Your task to perform on an android device: open app "PUBG MOBILE" (install if not already installed) Image 0: 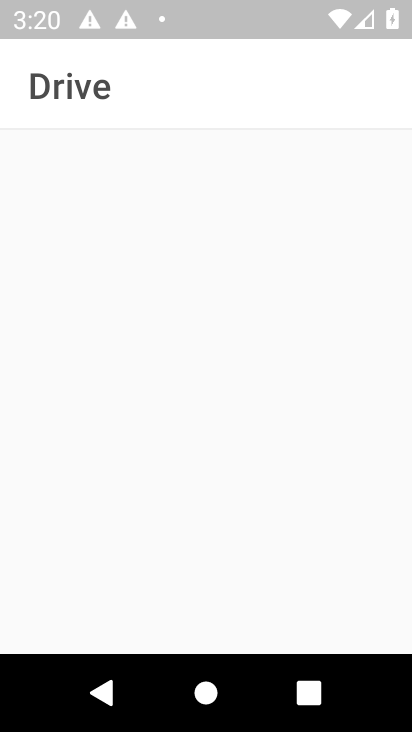
Step 0: press home button
Your task to perform on an android device: open app "PUBG MOBILE" (install if not already installed) Image 1: 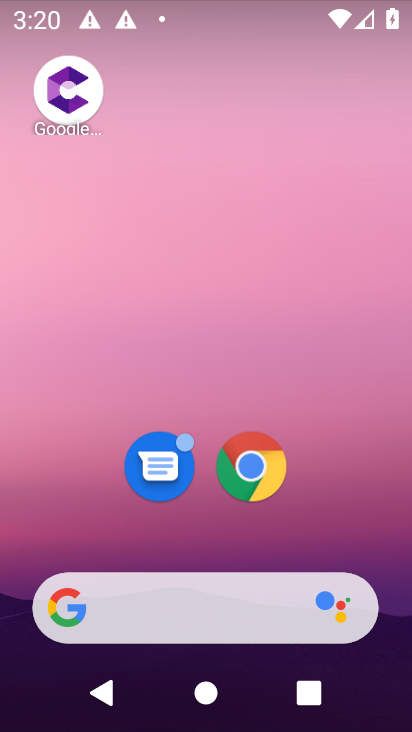
Step 1: drag from (324, 510) to (360, 0)
Your task to perform on an android device: open app "PUBG MOBILE" (install if not already installed) Image 2: 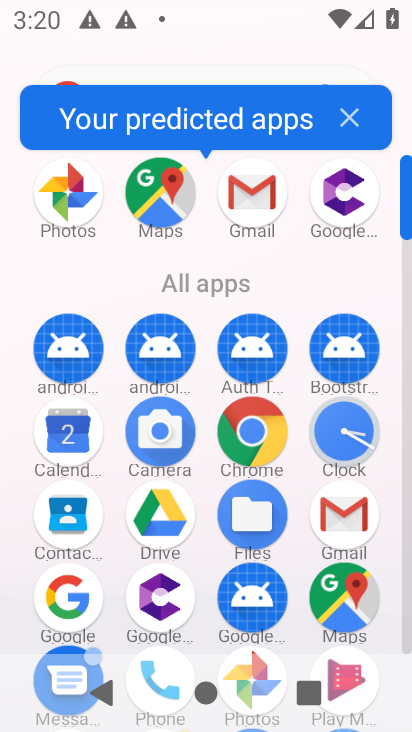
Step 2: click (411, 616)
Your task to perform on an android device: open app "PUBG MOBILE" (install if not already installed) Image 3: 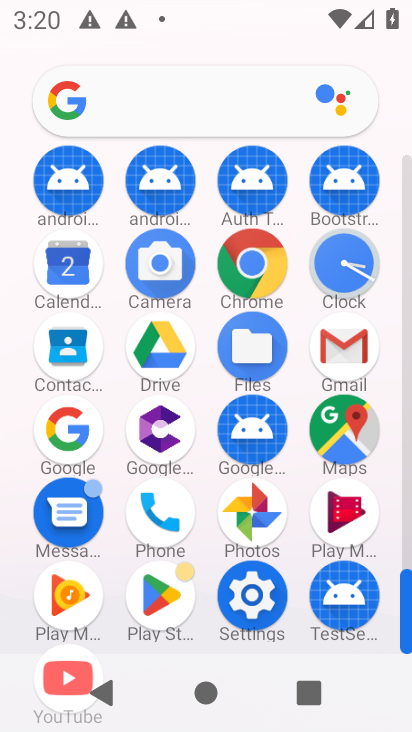
Step 3: click (141, 598)
Your task to perform on an android device: open app "PUBG MOBILE" (install if not already installed) Image 4: 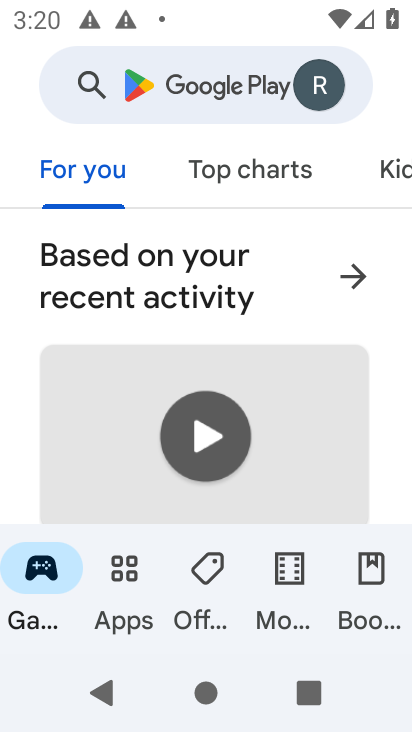
Step 4: click (213, 90)
Your task to perform on an android device: open app "PUBG MOBILE" (install if not already installed) Image 5: 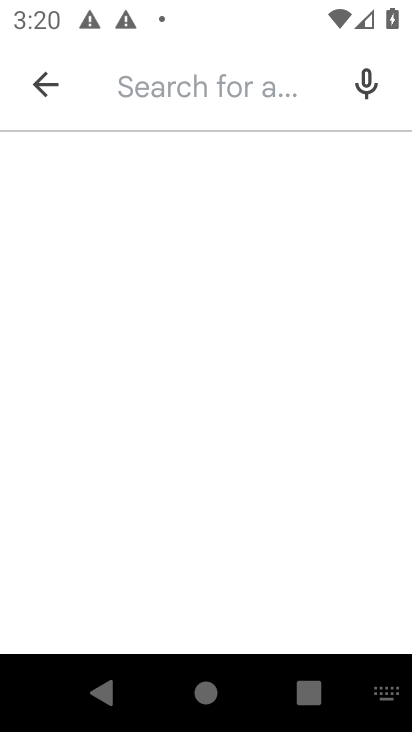
Step 5: type "Google Pay: Save, Pay, Manage"
Your task to perform on an android device: open app "PUBG MOBILE" (install if not already installed) Image 6: 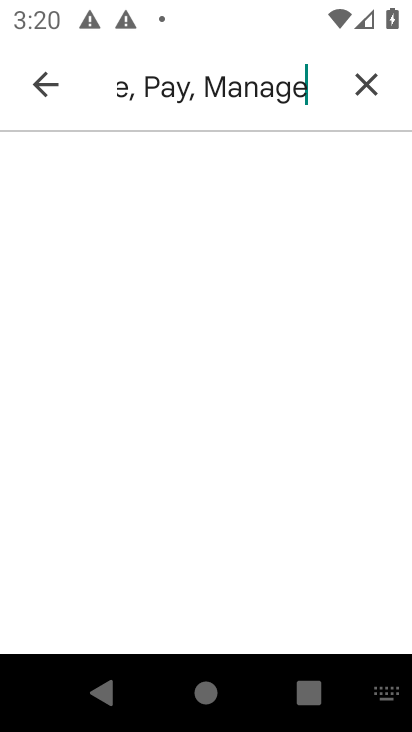
Step 6: type ""
Your task to perform on an android device: open app "PUBG MOBILE" (install if not already installed) Image 7: 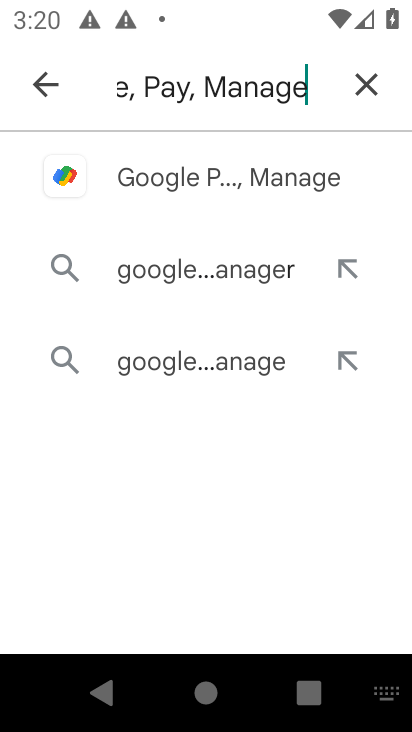
Step 7: click (127, 179)
Your task to perform on an android device: open app "PUBG MOBILE" (install if not already installed) Image 8: 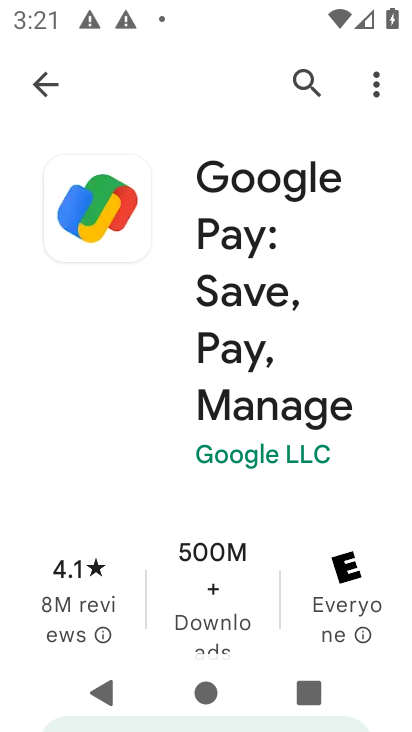
Step 8: click (305, 78)
Your task to perform on an android device: open app "PUBG MOBILE" (install if not already installed) Image 9: 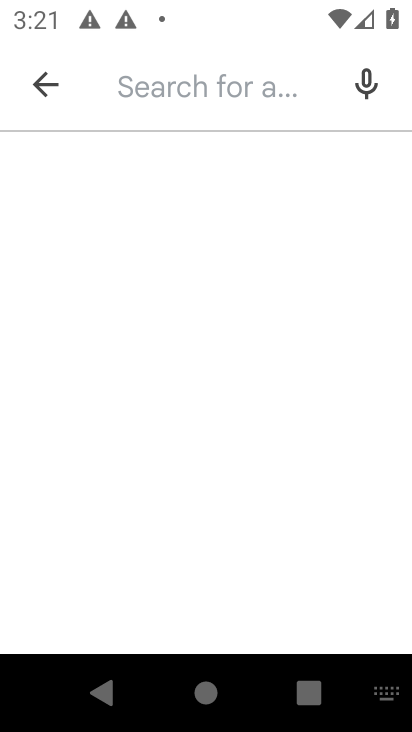
Step 9: type "PUBG MOBILE"
Your task to perform on an android device: open app "PUBG MOBILE" (install if not already installed) Image 10: 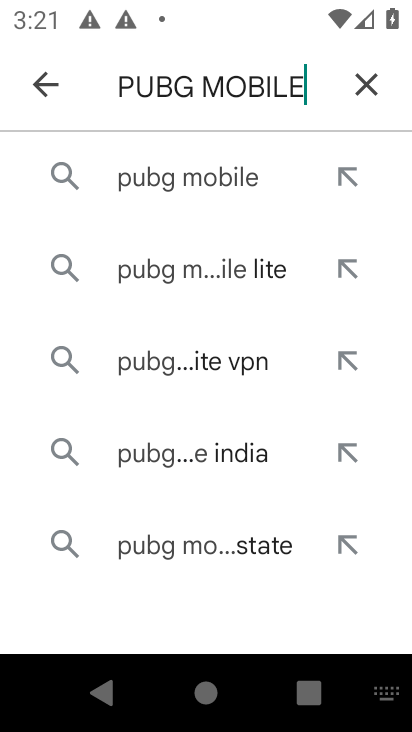
Step 10: click (167, 189)
Your task to perform on an android device: open app "PUBG MOBILE" (install if not already installed) Image 11: 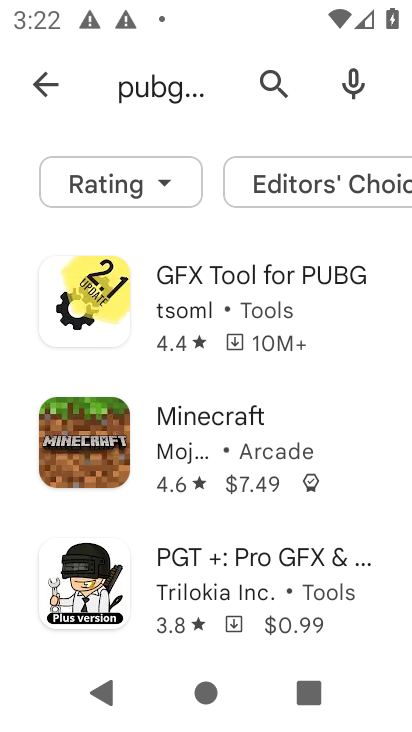
Step 11: task complete